Your task to perform on an android device: move a message to another label in the gmail app Image 0: 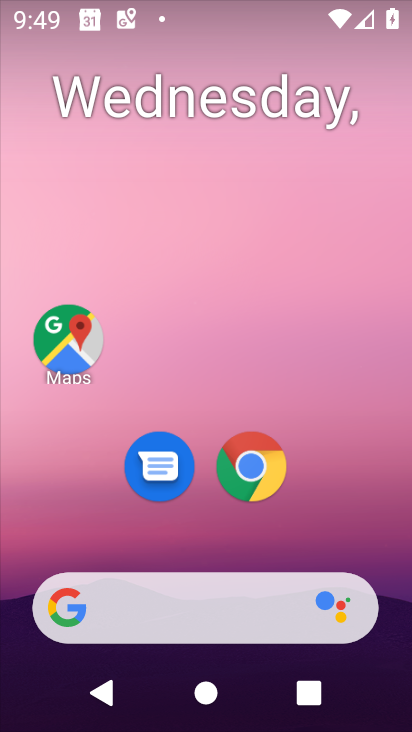
Step 0: drag from (343, 529) to (336, 209)
Your task to perform on an android device: move a message to another label in the gmail app Image 1: 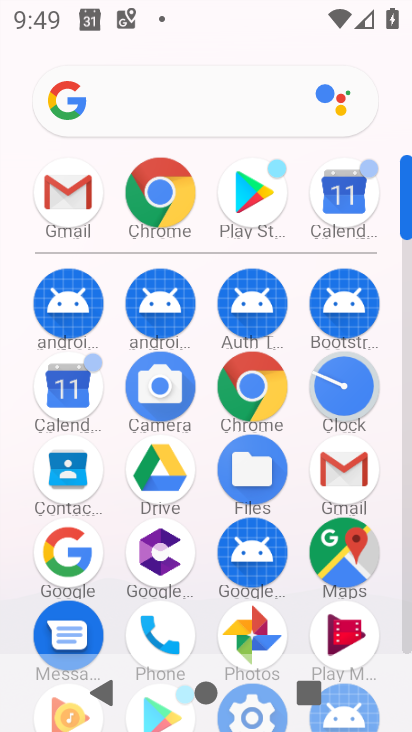
Step 1: click (71, 200)
Your task to perform on an android device: move a message to another label in the gmail app Image 2: 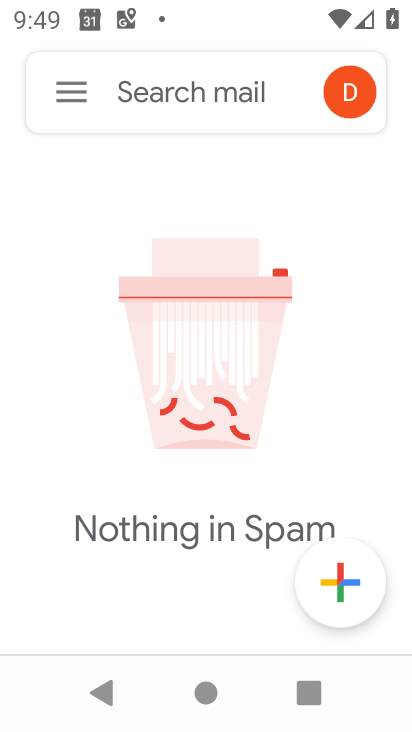
Step 2: click (66, 54)
Your task to perform on an android device: move a message to another label in the gmail app Image 3: 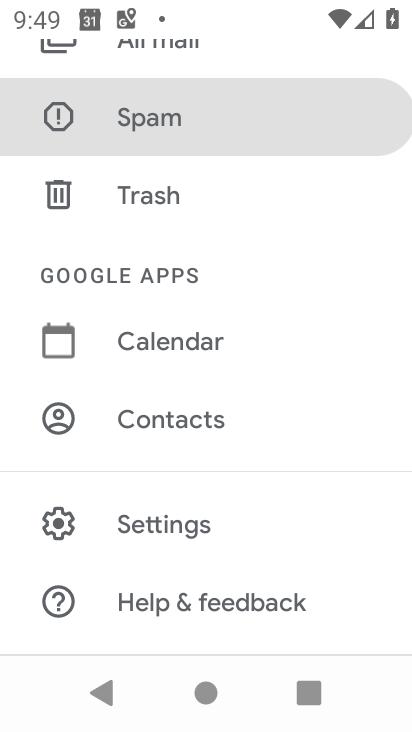
Step 3: click (65, 88)
Your task to perform on an android device: move a message to another label in the gmail app Image 4: 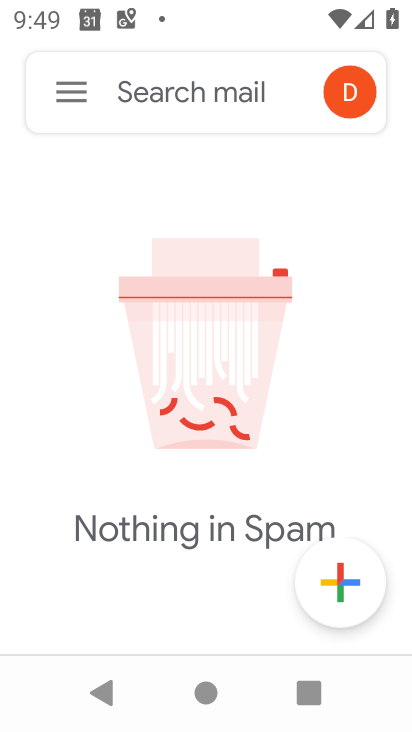
Step 4: drag from (161, 189) to (164, 523)
Your task to perform on an android device: move a message to another label in the gmail app Image 5: 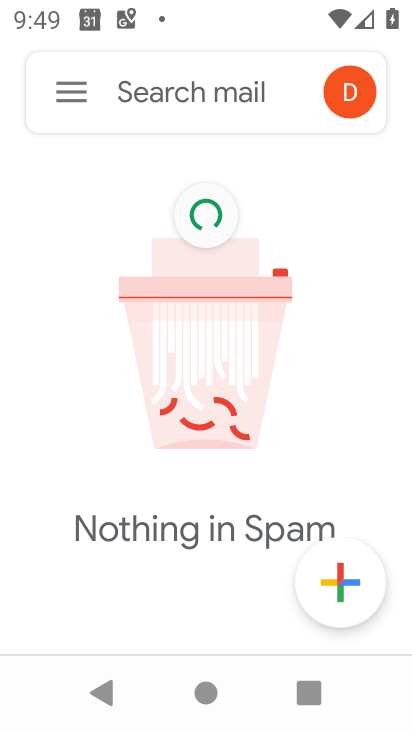
Step 5: click (47, 100)
Your task to perform on an android device: move a message to another label in the gmail app Image 6: 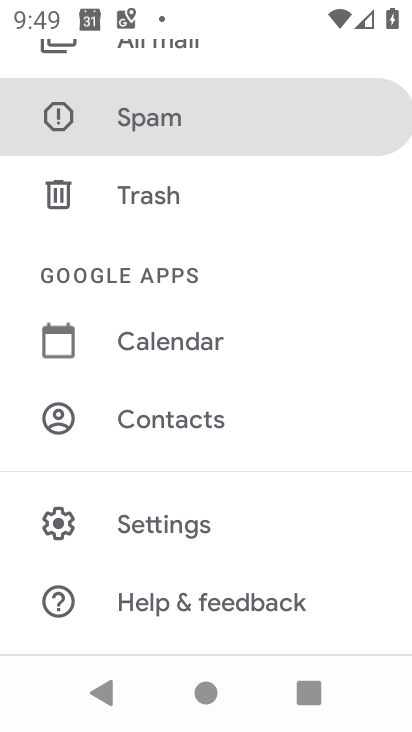
Step 6: drag from (264, 192) to (283, 512)
Your task to perform on an android device: move a message to another label in the gmail app Image 7: 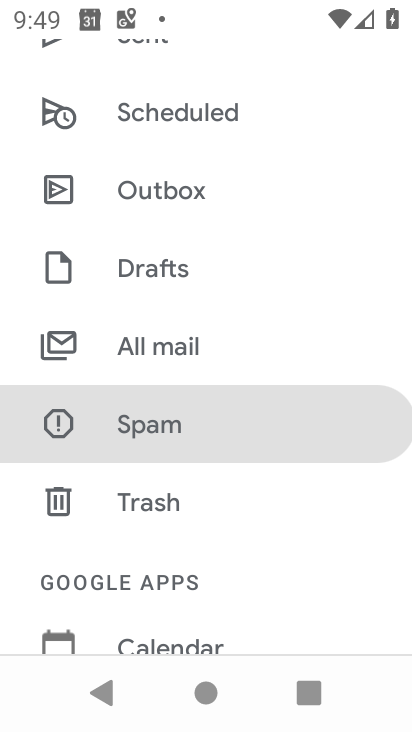
Step 7: click (188, 345)
Your task to perform on an android device: move a message to another label in the gmail app Image 8: 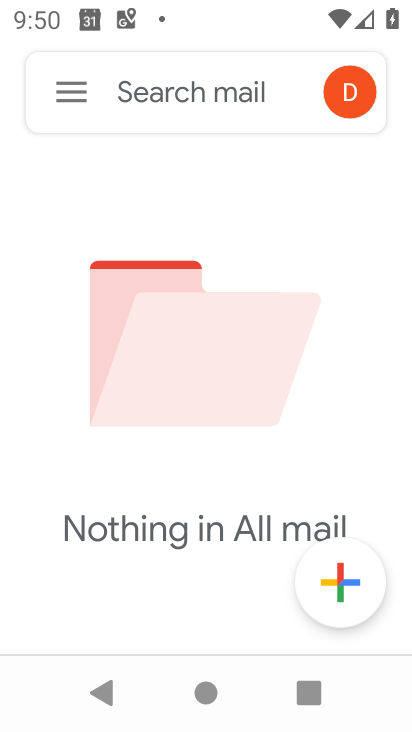
Step 8: task complete